Your task to perform on an android device: clear history in the chrome app Image 0: 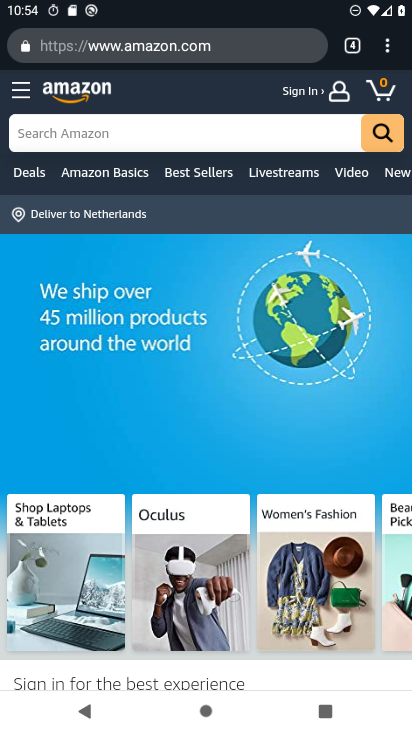
Step 0: click (394, 57)
Your task to perform on an android device: clear history in the chrome app Image 1: 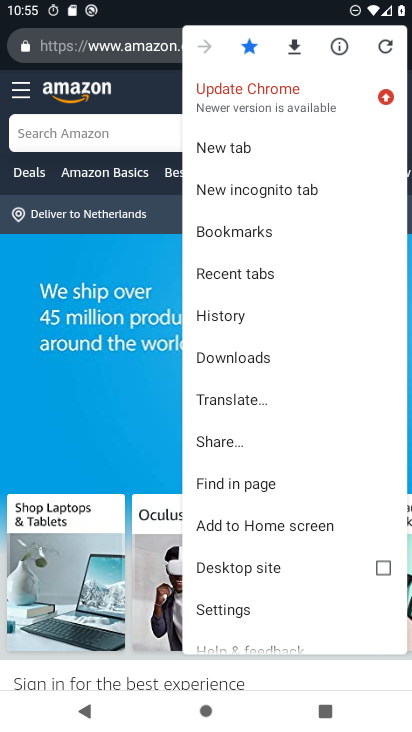
Step 1: click (201, 315)
Your task to perform on an android device: clear history in the chrome app Image 2: 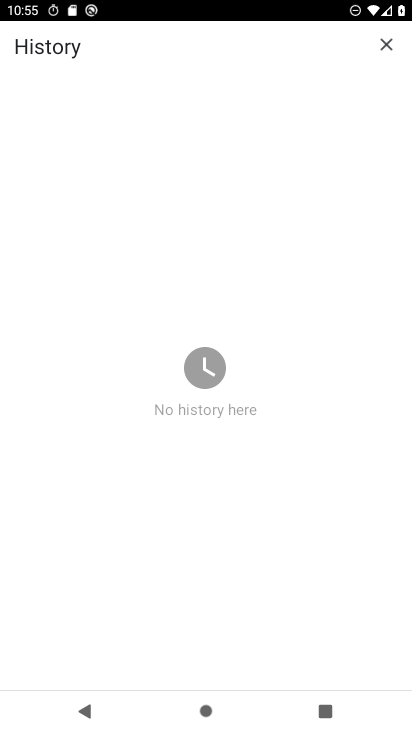
Step 2: task complete